Your task to perform on an android device: open app "Speedtest by Ookla" (install if not already installed) Image 0: 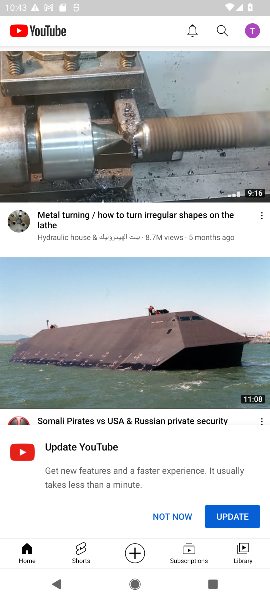
Step 0: press home button
Your task to perform on an android device: open app "Speedtest by Ookla" (install if not already installed) Image 1: 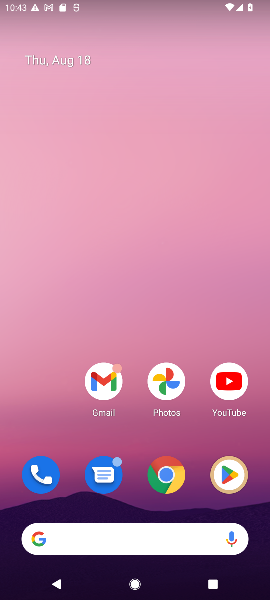
Step 1: drag from (124, 510) to (71, 72)
Your task to perform on an android device: open app "Speedtest by Ookla" (install if not already installed) Image 2: 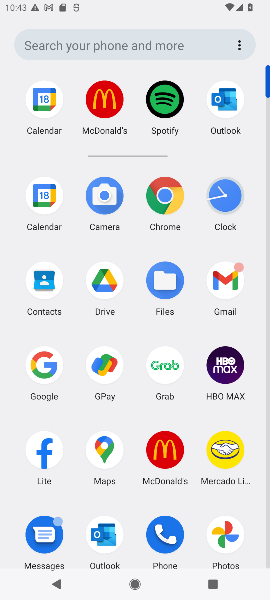
Step 2: drag from (124, 494) to (84, 143)
Your task to perform on an android device: open app "Speedtest by Ookla" (install if not already installed) Image 3: 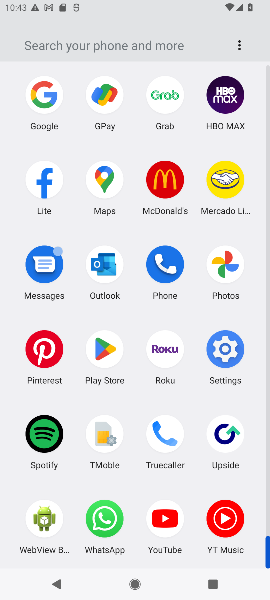
Step 3: click (92, 365)
Your task to perform on an android device: open app "Speedtest by Ookla" (install if not already installed) Image 4: 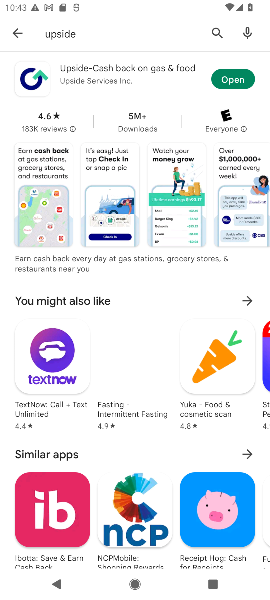
Step 4: click (17, 31)
Your task to perform on an android device: open app "Speedtest by Ookla" (install if not already installed) Image 5: 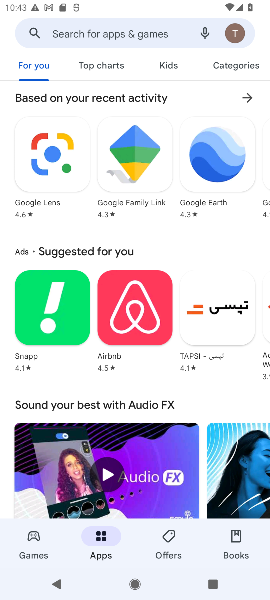
Step 5: click (64, 35)
Your task to perform on an android device: open app "Speedtest by Ookla" (install if not already installed) Image 6: 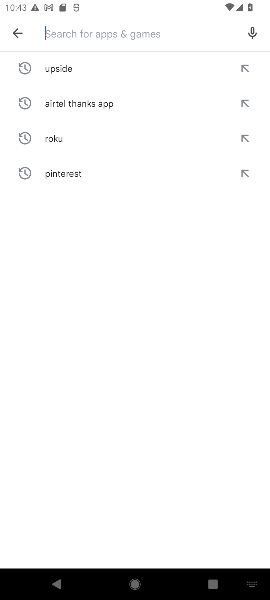
Step 6: type "Speedtest by Ookla"
Your task to perform on an android device: open app "Speedtest by Ookla" (install if not already installed) Image 7: 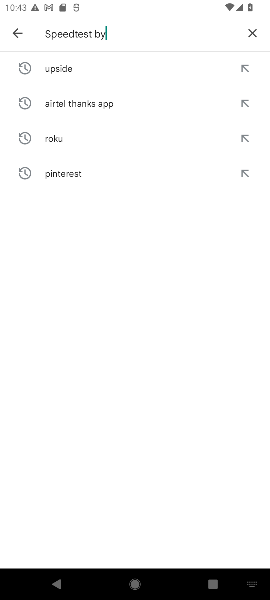
Step 7: type ""
Your task to perform on an android device: open app "Speedtest by Ookla" (install if not already installed) Image 8: 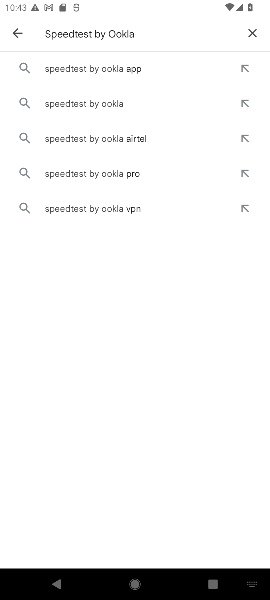
Step 8: click (88, 69)
Your task to perform on an android device: open app "Speedtest by Ookla" (install if not already installed) Image 9: 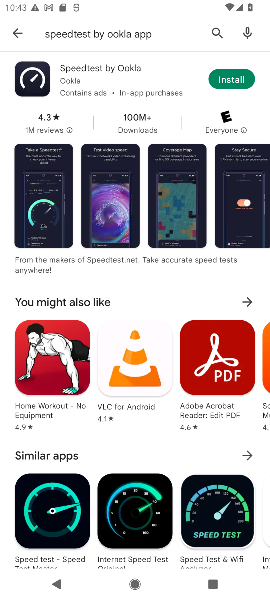
Step 9: click (245, 78)
Your task to perform on an android device: open app "Speedtest by Ookla" (install if not already installed) Image 10: 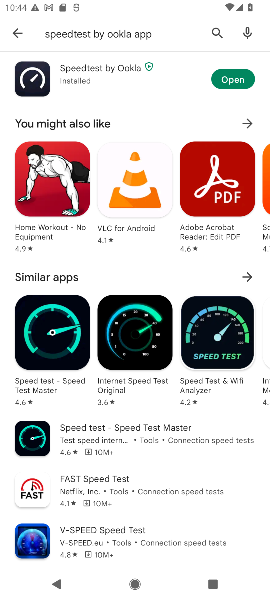
Step 10: click (236, 89)
Your task to perform on an android device: open app "Speedtest by Ookla" (install if not already installed) Image 11: 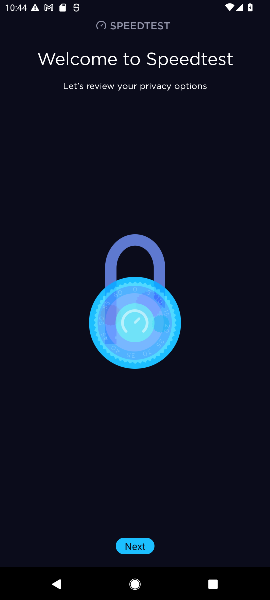
Step 11: task complete